Your task to perform on an android device: Check the news Image 0: 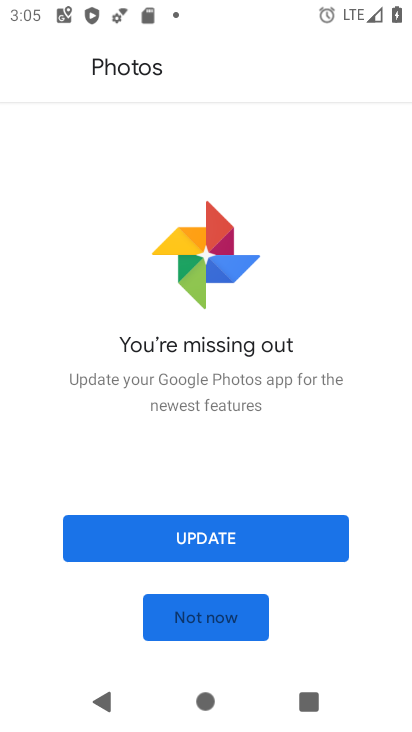
Step 0: press home button
Your task to perform on an android device: Check the news Image 1: 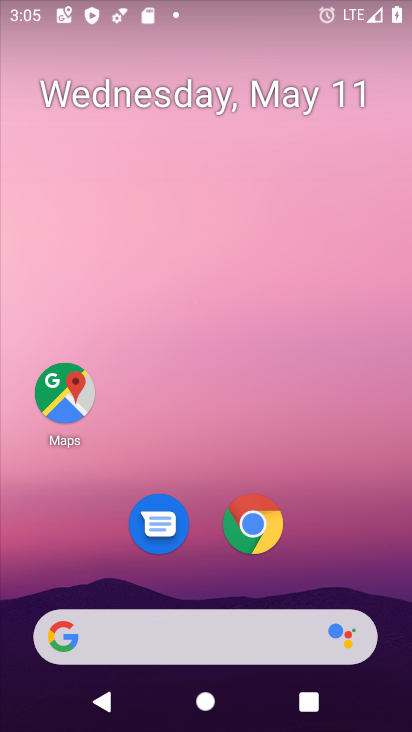
Step 1: click (257, 636)
Your task to perform on an android device: Check the news Image 2: 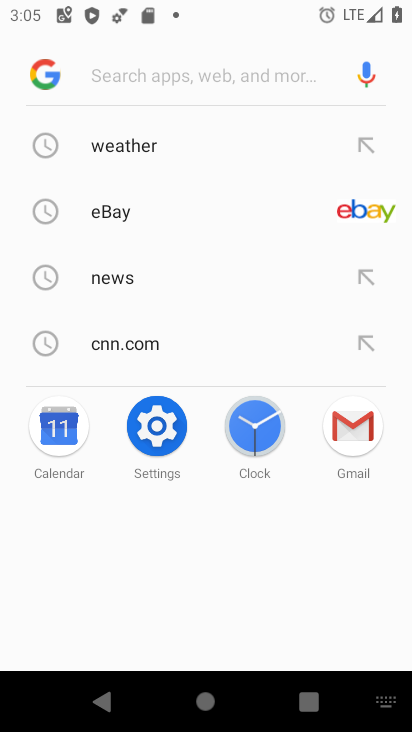
Step 2: click (82, 275)
Your task to perform on an android device: Check the news Image 3: 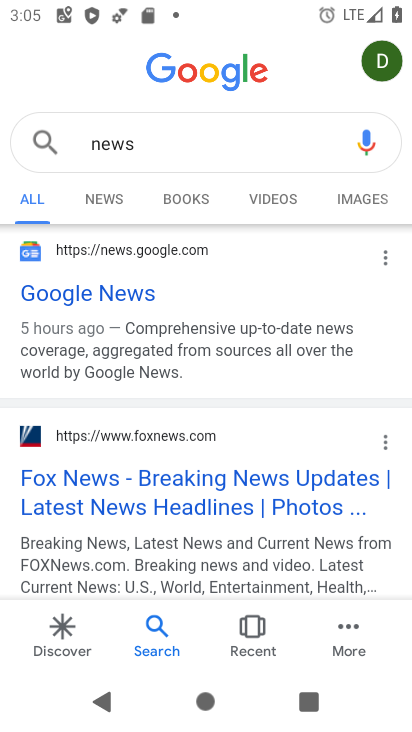
Step 3: click (113, 198)
Your task to perform on an android device: Check the news Image 4: 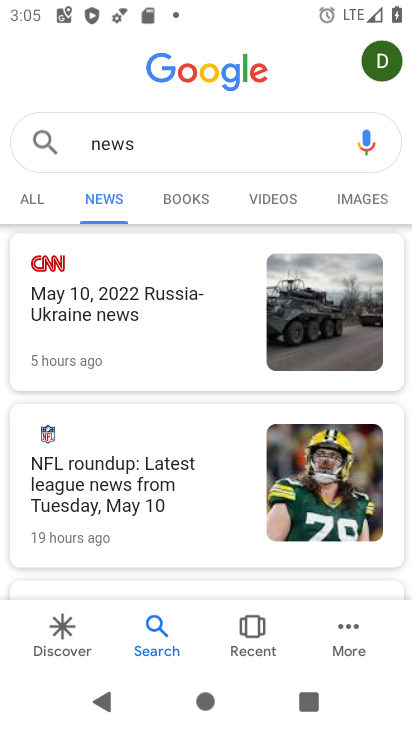
Step 4: task complete